Your task to perform on an android device: Open wifi settings Image 0: 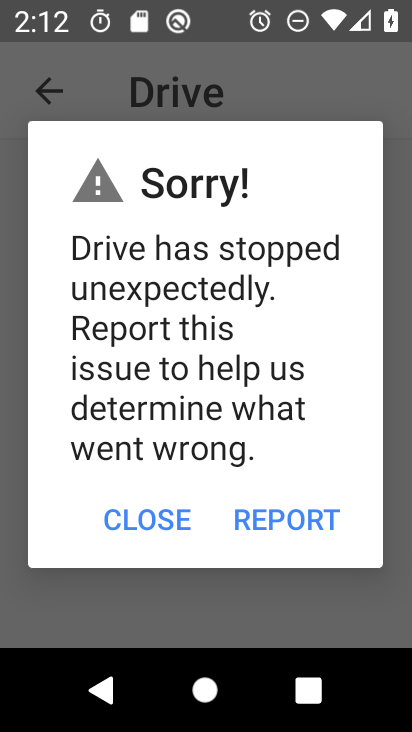
Step 0: press home button
Your task to perform on an android device: Open wifi settings Image 1: 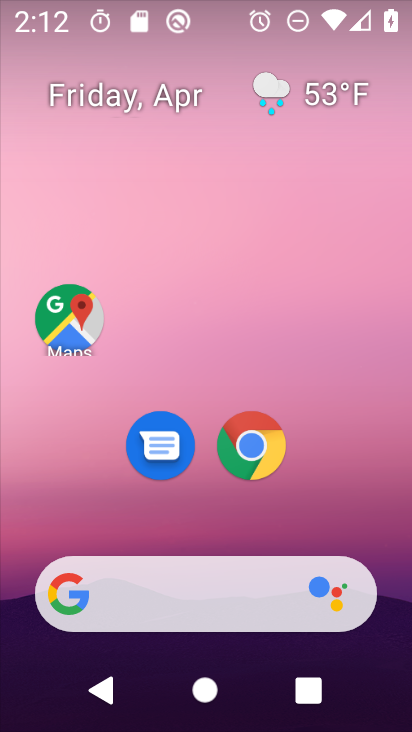
Step 1: drag from (372, 503) to (365, 179)
Your task to perform on an android device: Open wifi settings Image 2: 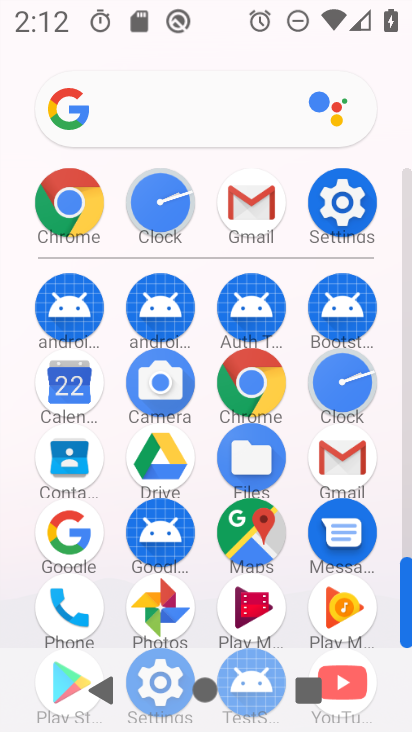
Step 2: click (346, 210)
Your task to perform on an android device: Open wifi settings Image 3: 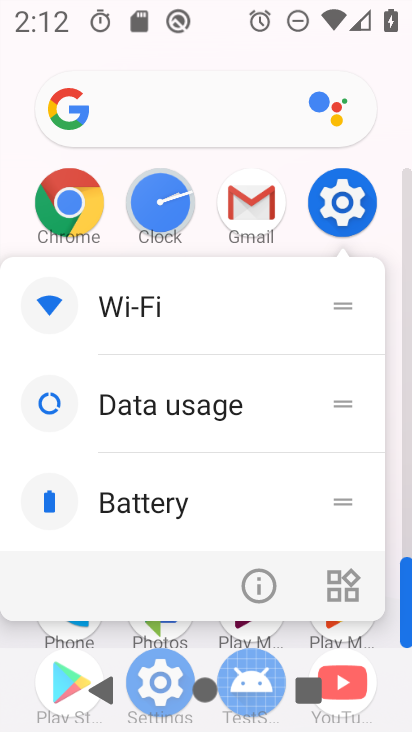
Step 3: click (346, 210)
Your task to perform on an android device: Open wifi settings Image 4: 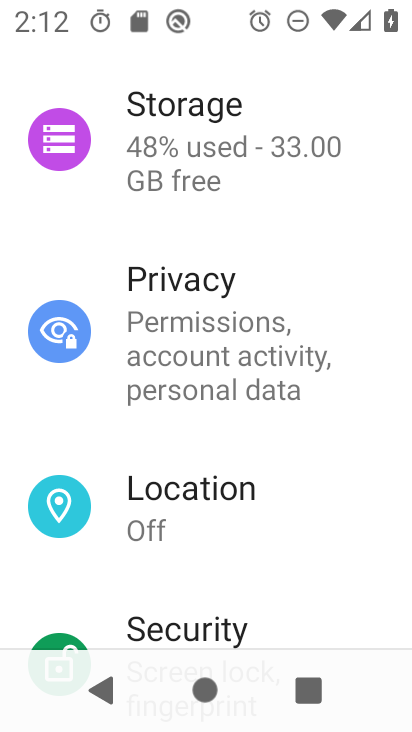
Step 4: drag from (356, 566) to (345, 373)
Your task to perform on an android device: Open wifi settings Image 5: 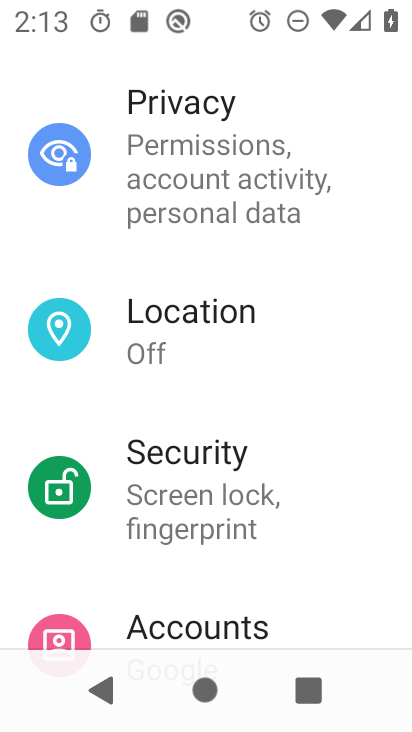
Step 5: drag from (330, 506) to (335, 284)
Your task to perform on an android device: Open wifi settings Image 6: 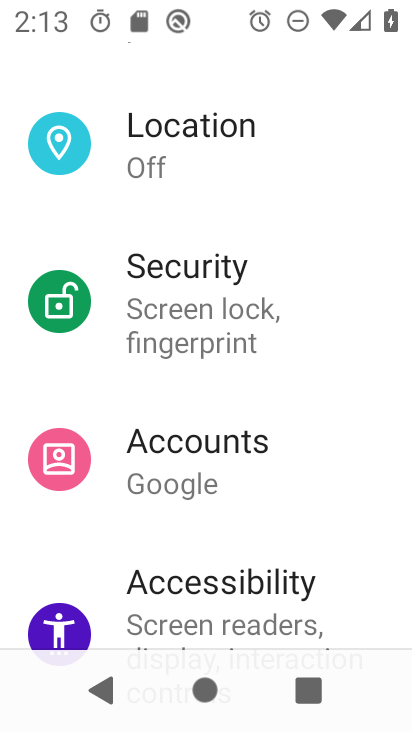
Step 6: drag from (347, 228) to (336, 418)
Your task to perform on an android device: Open wifi settings Image 7: 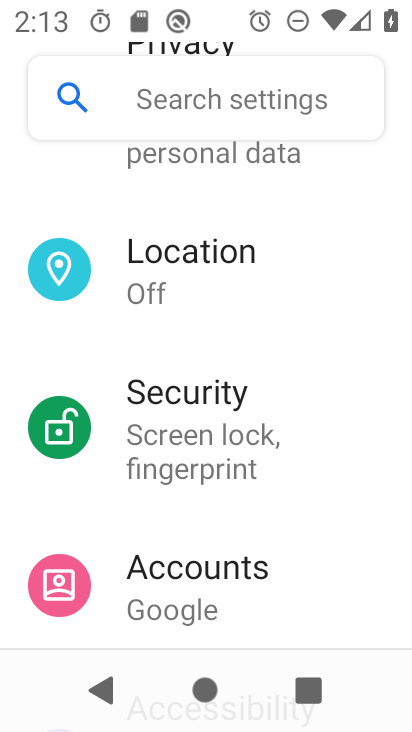
Step 7: drag from (335, 281) to (342, 438)
Your task to perform on an android device: Open wifi settings Image 8: 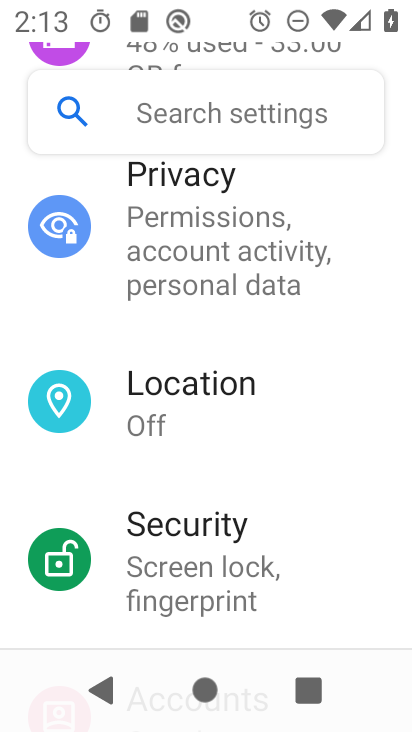
Step 8: drag from (351, 240) to (350, 407)
Your task to perform on an android device: Open wifi settings Image 9: 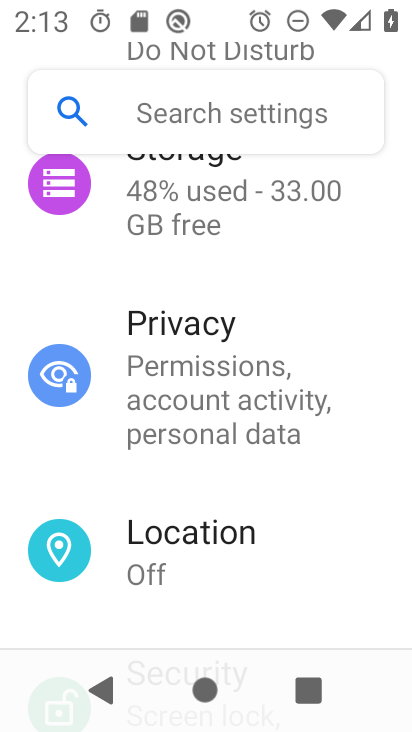
Step 9: drag from (357, 242) to (353, 411)
Your task to perform on an android device: Open wifi settings Image 10: 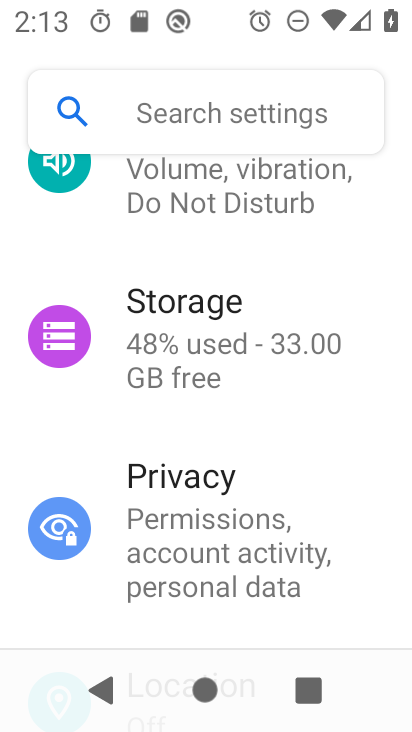
Step 10: drag from (356, 249) to (354, 427)
Your task to perform on an android device: Open wifi settings Image 11: 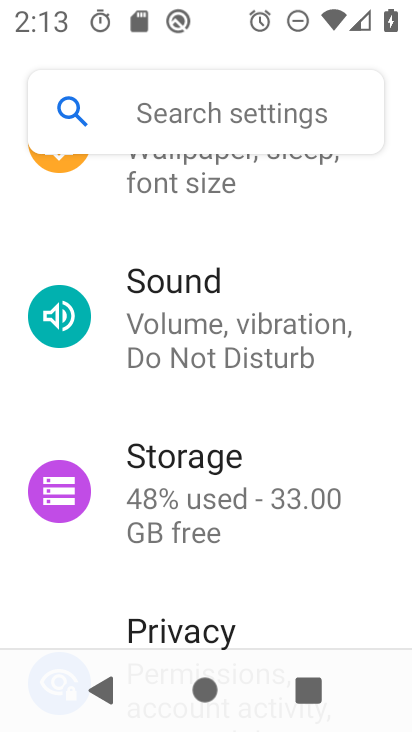
Step 11: drag from (369, 238) to (372, 405)
Your task to perform on an android device: Open wifi settings Image 12: 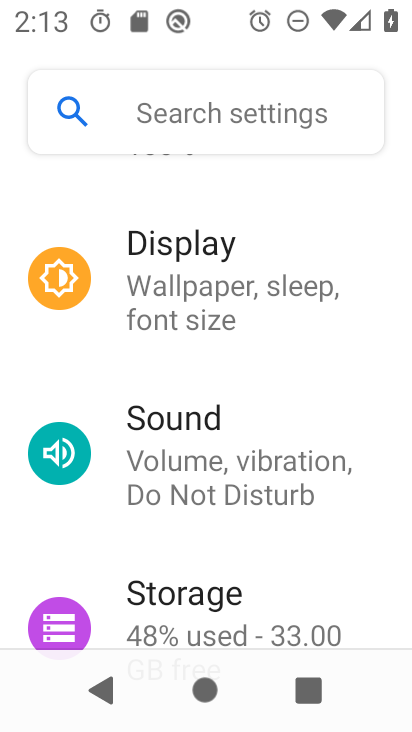
Step 12: drag from (361, 241) to (360, 413)
Your task to perform on an android device: Open wifi settings Image 13: 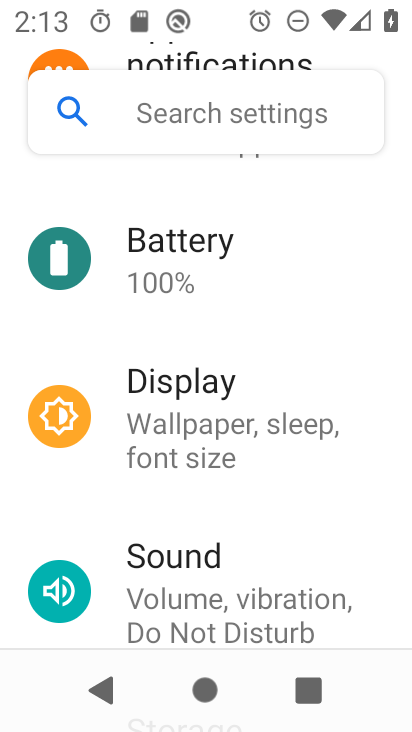
Step 13: drag from (365, 237) to (363, 385)
Your task to perform on an android device: Open wifi settings Image 14: 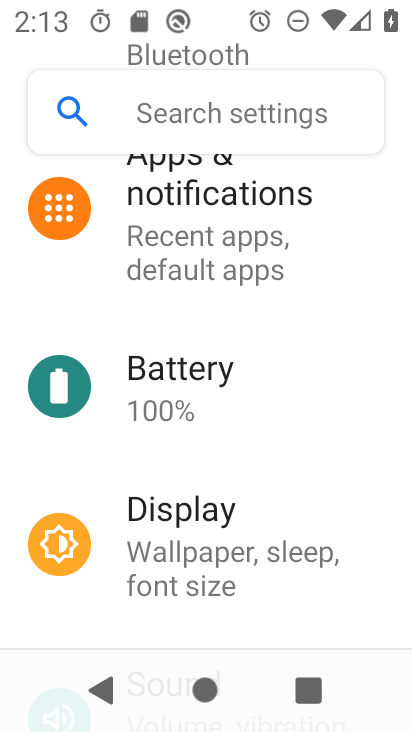
Step 14: drag from (346, 226) to (334, 387)
Your task to perform on an android device: Open wifi settings Image 15: 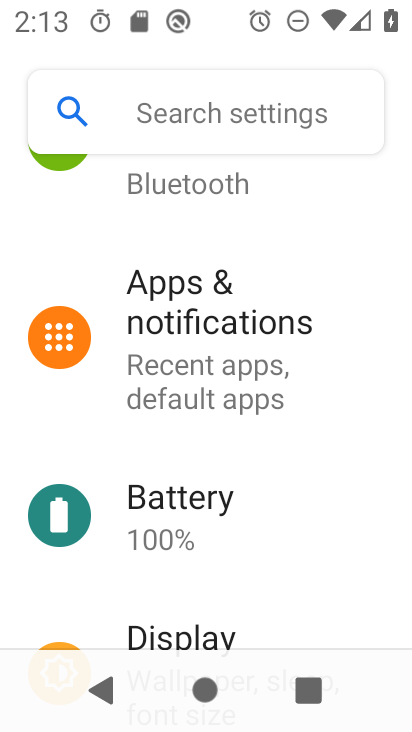
Step 15: drag from (335, 212) to (320, 488)
Your task to perform on an android device: Open wifi settings Image 16: 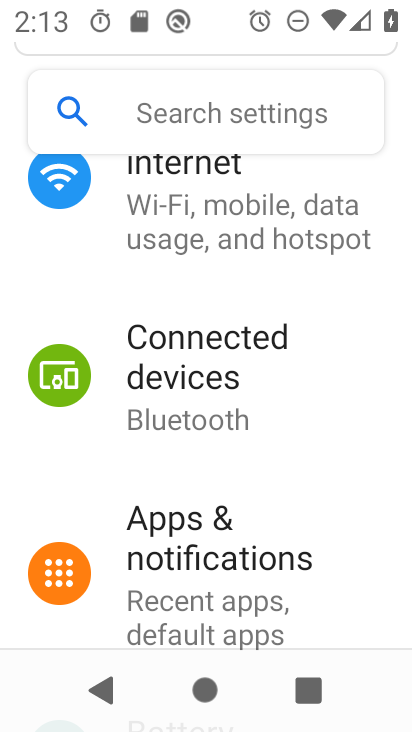
Step 16: click (297, 210)
Your task to perform on an android device: Open wifi settings Image 17: 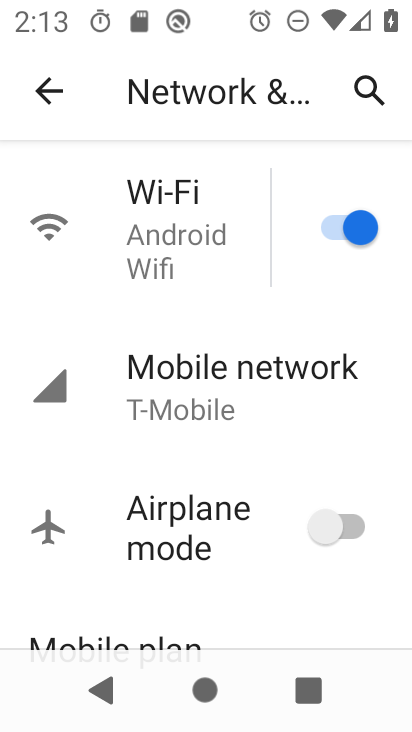
Step 17: click (193, 209)
Your task to perform on an android device: Open wifi settings Image 18: 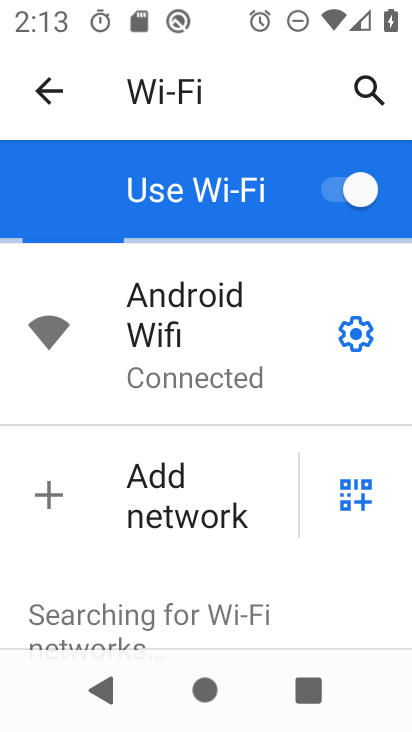
Step 18: task complete